Your task to perform on an android device: delete browsing data in the chrome app Image 0: 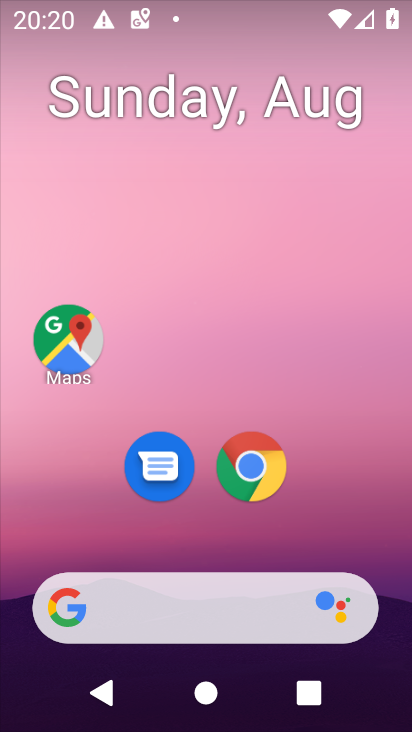
Step 0: click (265, 459)
Your task to perform on an android device: delete browsing data in the chrome app Image 1: 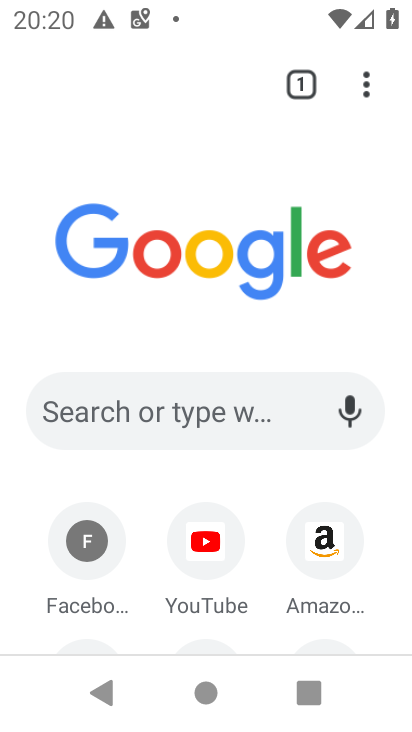
Step 1: click (360, 88)
Your task to perform on an android device: delete browsing data in the chrome app Image 2: 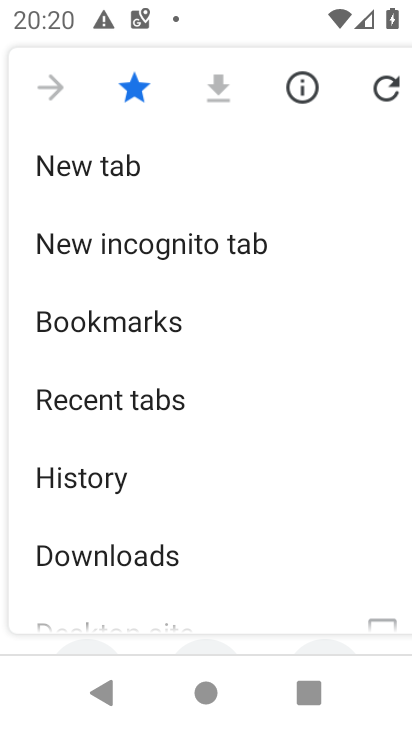
Step 2: drag from (174, 499) to (139, 268)
Your task to perform on an android device: delete browsing data in the chrome app Image 3: 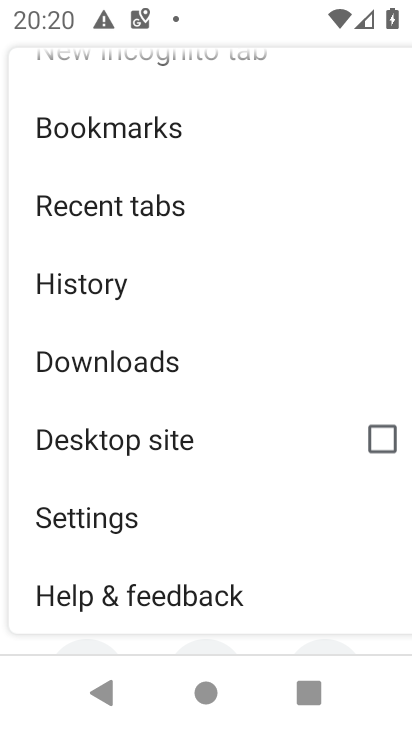
Step 3: click (99, 278)
Your task to perform on an android device: delete browsing data in the chrome app Image 4: 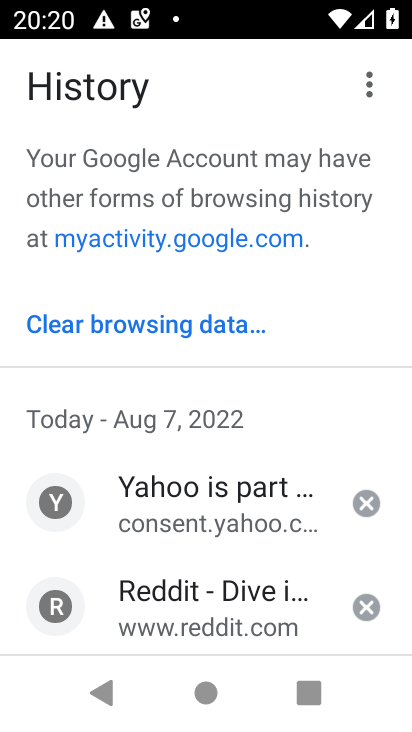
Step 4: click (149, 322)
Your task to perform on an android device: delete browsing data in the chrome app Image 5: 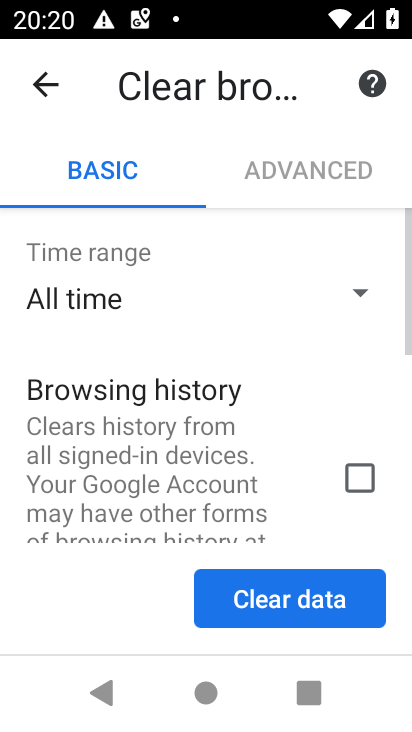
Step 5: click (355, 579)
Your task to perform on an android device: delete browsing data in the chrome app Image 6: 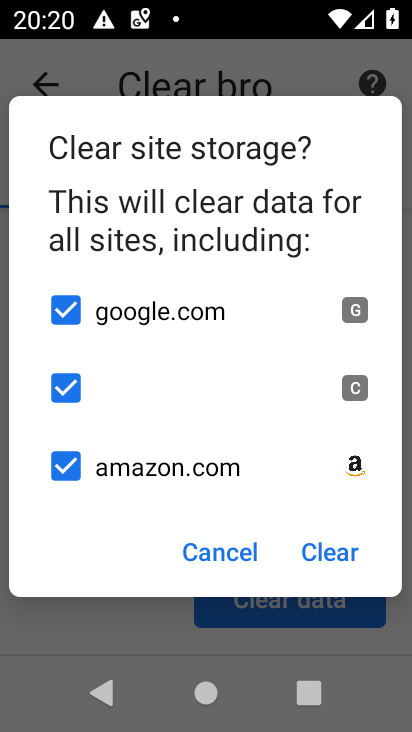
Step 6: click (234, 554)
Your task to perform on an android device: delete browsing data in the chrome app Image 7: 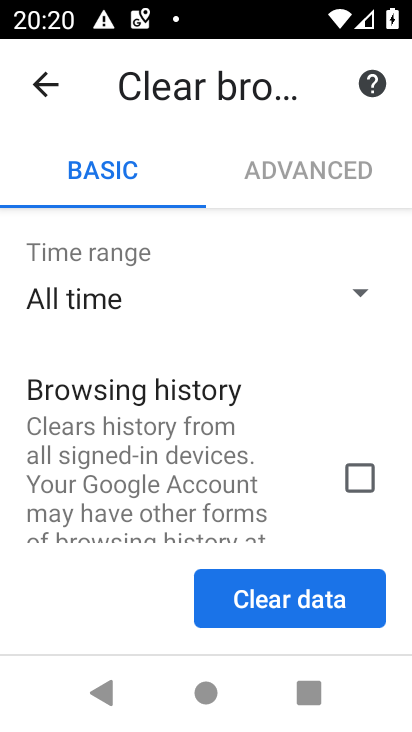
Step 7: click (363, 478)
Your task to perform on an android device: delete browsing data in the chrome app Image 8: 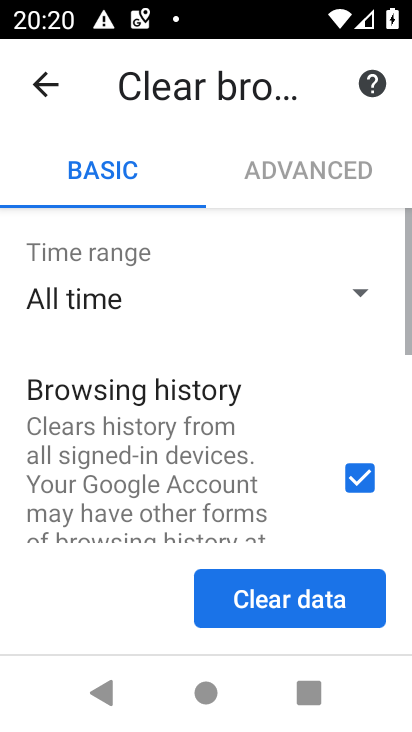
Step 8: click (368, 607)
Your task to perform on an android device: delete browsing data in the chrome app Image 9: 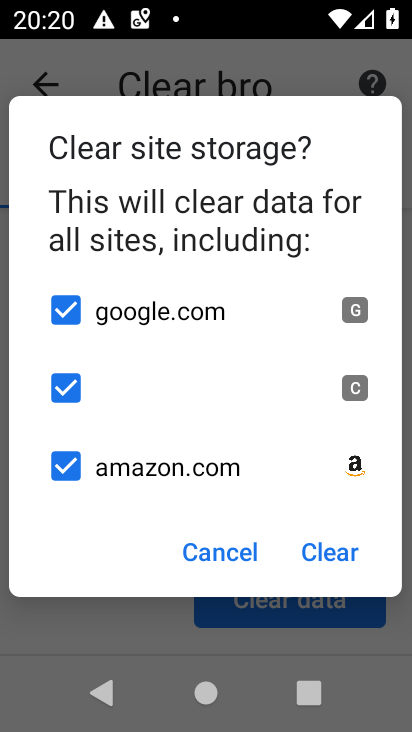
Step 9: click (341, 565)
Your task to perform on an android device: delete browsing data in the chrome app Image 10: 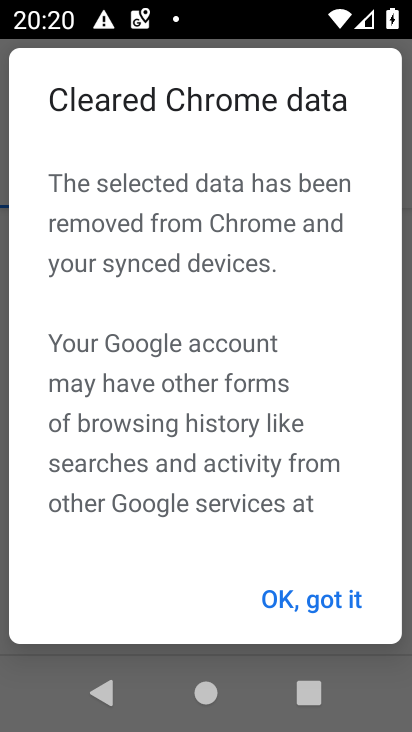
Step 10: click (300, 604)
Your task to perform on an android device: delete browsing data in the chrome app Image 11: 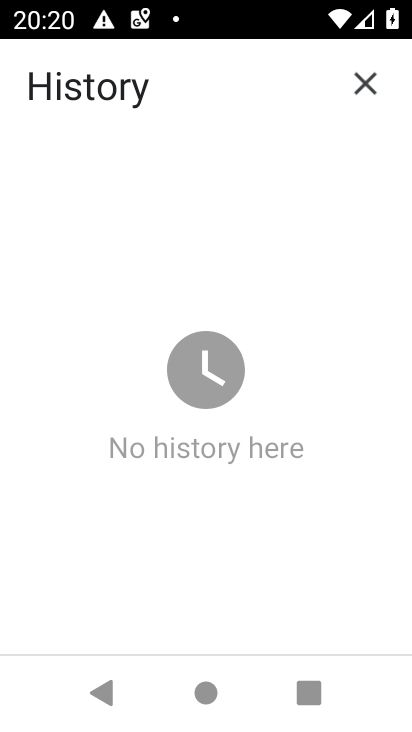
Step 11: task complete